Your task to perform on an android device: find which apps use the phone's location Image 0: 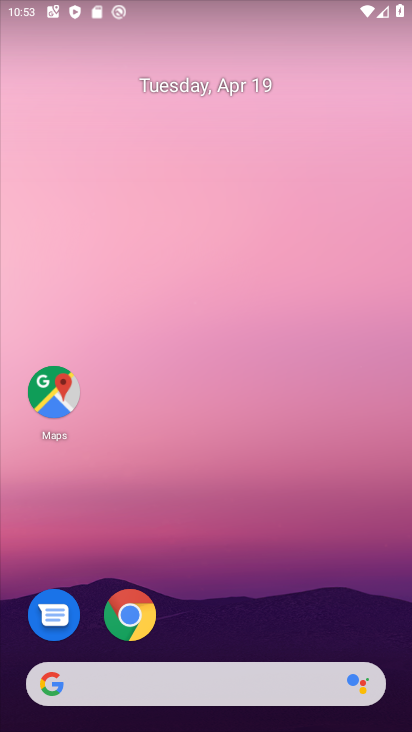
Step 0: drag from (217, 495) to (206, 124)
Your task to perform on an android device: find which apps use the phone's location Image 1: 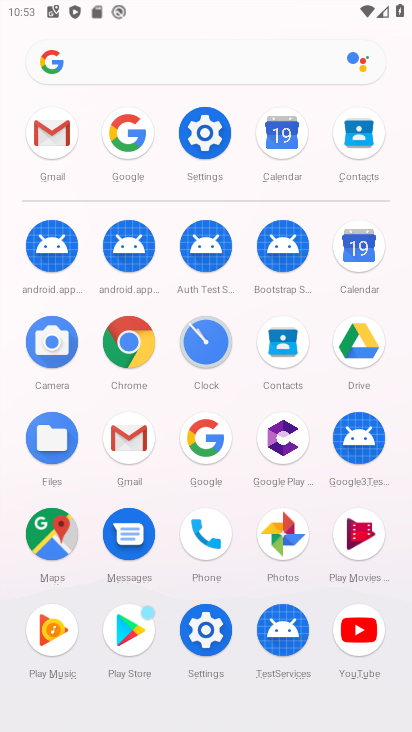
Step 1: click (208, 628)
Your task to perform on an android device: find which apps use the phone's location Image 2: 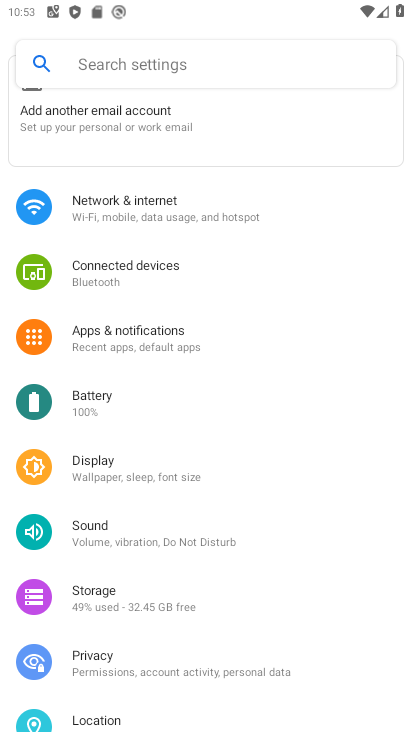
Step 2: drag from (153, 623) to (164, 415)
Your task to perform on an android device: find which apps use the phone's location Image 3: 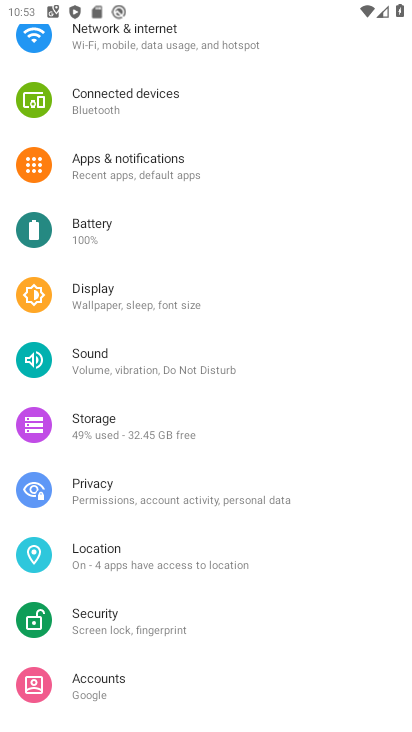
Step 3: click (110, 550)
Your task to perform on an android device: find which apps use the phone's location Image 4: 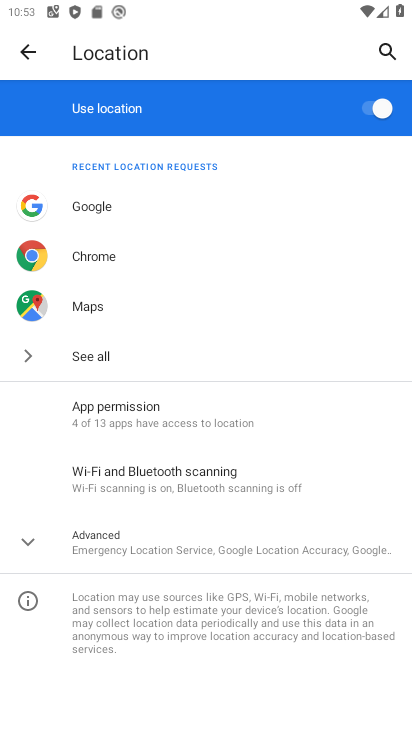
Step 4: click (173, 421)
Your task to perform on an android device: find which apps use the phone's location Image 5: 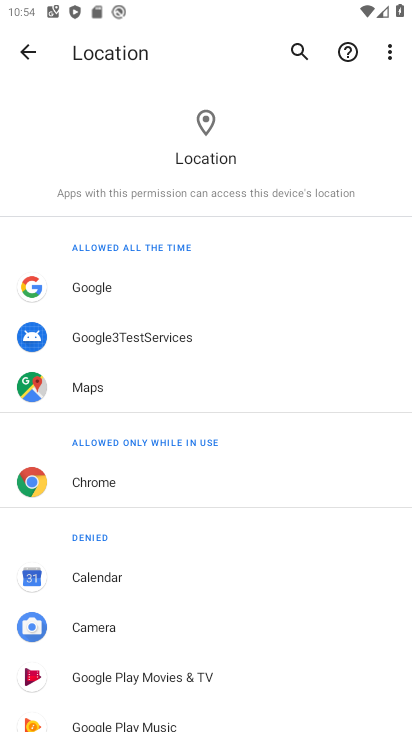
Step 5: task complete